Your task to perform on an android device: Go to Android settings Image 0: 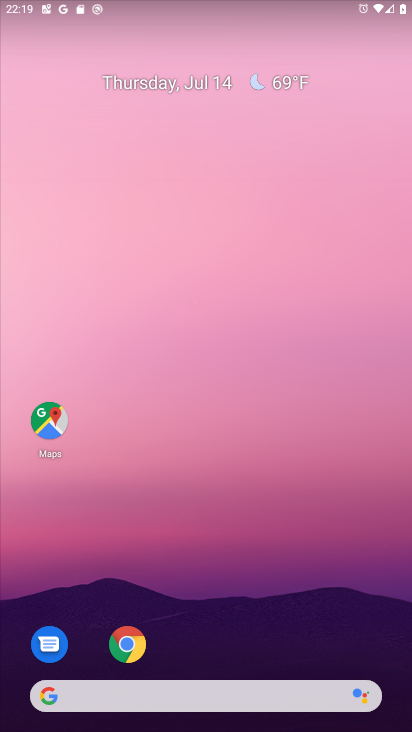
Step 0: drag from (201, 665) to (222, 56)
Your task to perform on an android device: Go to Android settings Image 1: 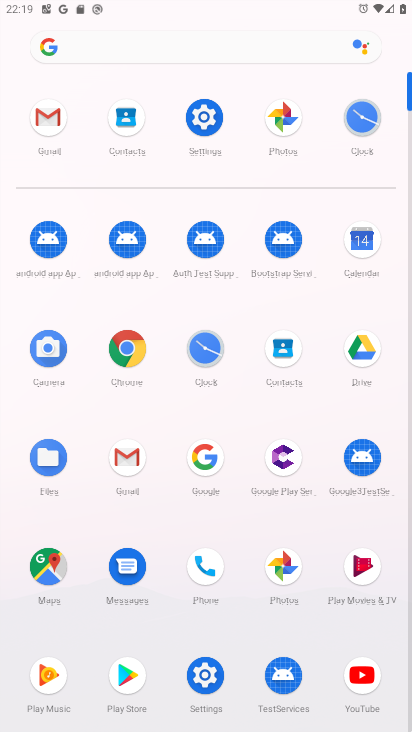
Step 1: click (207, 102)
Your task to perform on an android device: Go to Android settings Image 2: 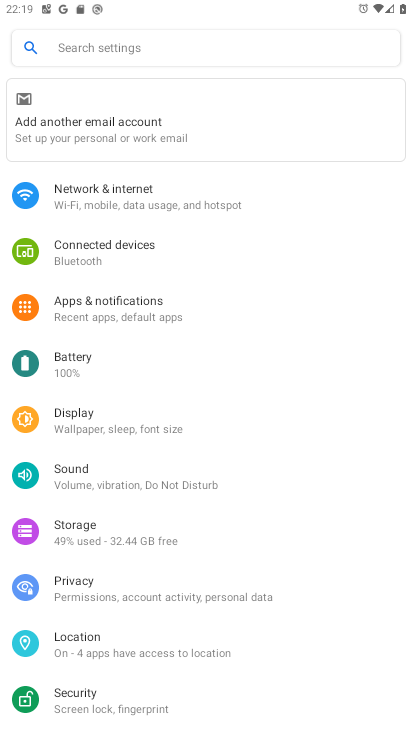
Step 2: task complete